Your task to perform on an android device: clear history in the chrome app Image 0: 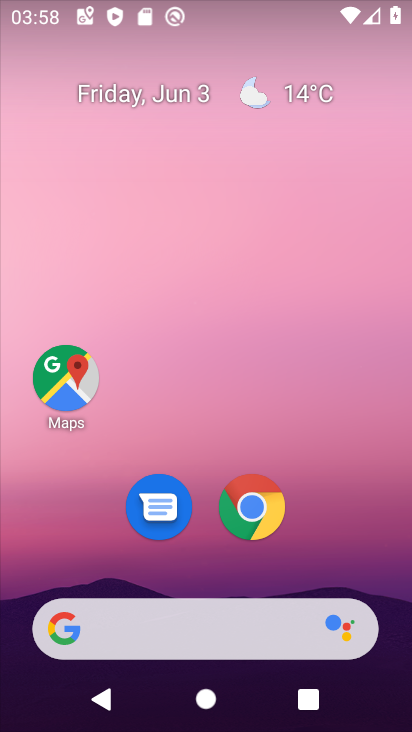
Step 0: press home button
Your task to perform on an android device: clear history in the chrome app Image 1: 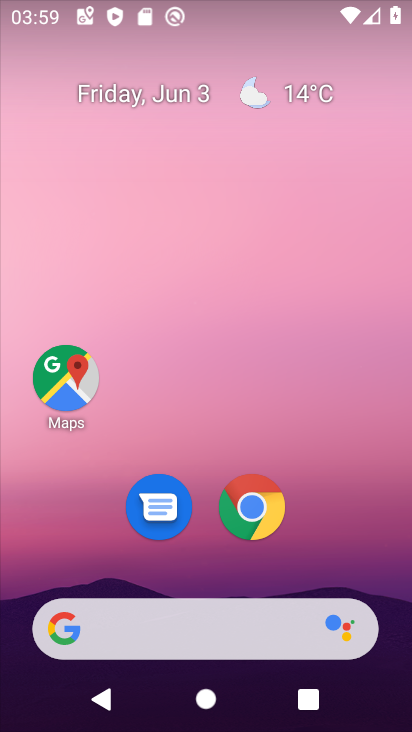
Step 1: click (245, 517)
Your task to perform on an android device: clear history in the chrome app Image 2: 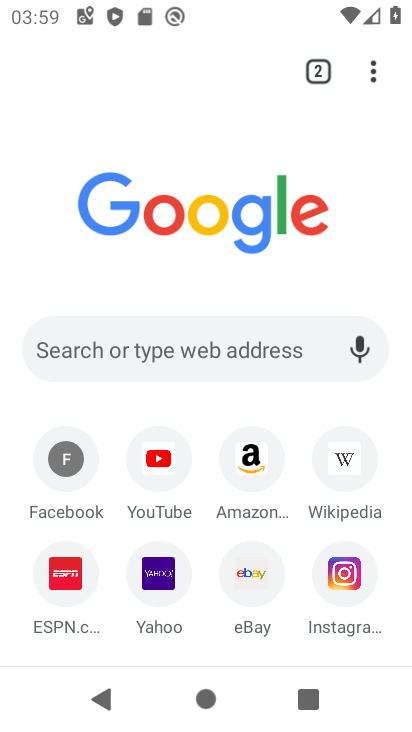
Step 2: drag from (379, 66) to (99, 413)
Your task to perform on an android device: clear history in the chrome app Image 3: 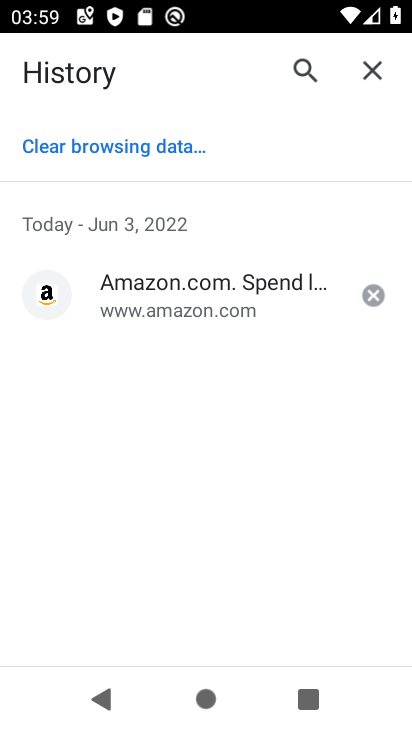
Step 3: click (93, 146)
Your task to perform on an android device: clear history in the chrome app Image 4: 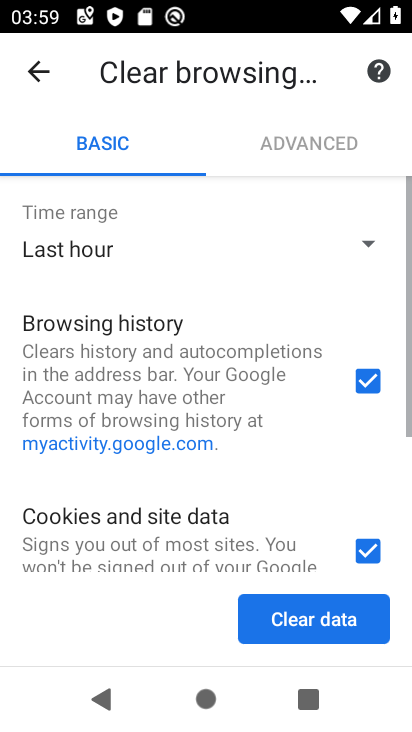
Step 4: click (342, 624)
Your task to perform on an android device: clear history in the chrome app Image 5: 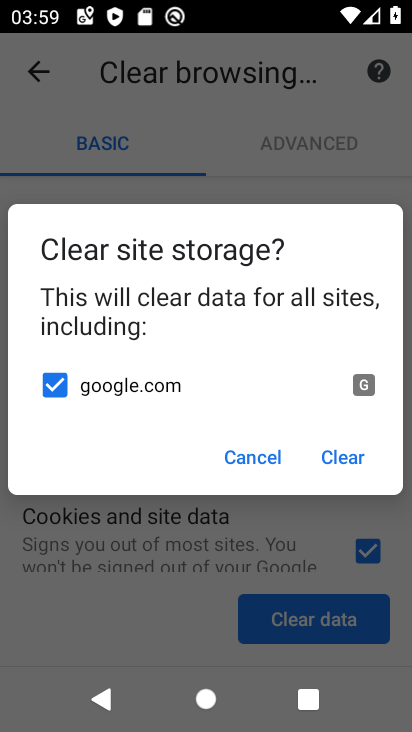
Step 5: click (350, 458)
Your task to perform on an android device: clear history in the chrome app Image 6: 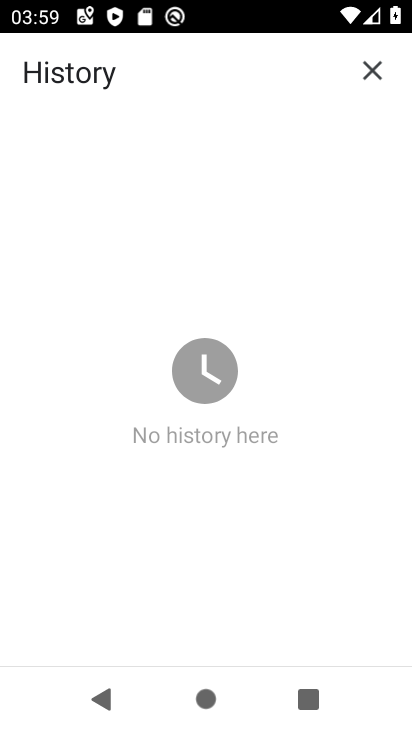
Step 6: task complete